Your task to perform on an android device: Search for seafood restaurants on Google Maps Image 0: 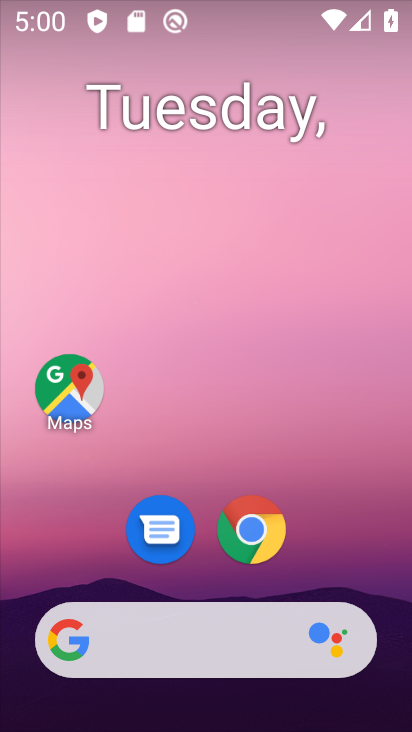
Step 0: press home button
Your task to perform on an android device: Search for seafood restaurants on Google Maps Image 1: 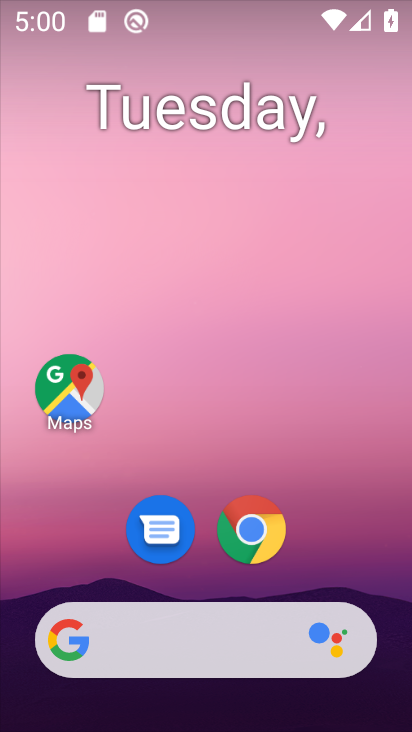
Step 1: drag from (369, 422) to (351, 117)
Your task to perform on an android device: Search for seafood restaurants on Google Maps Image 2: 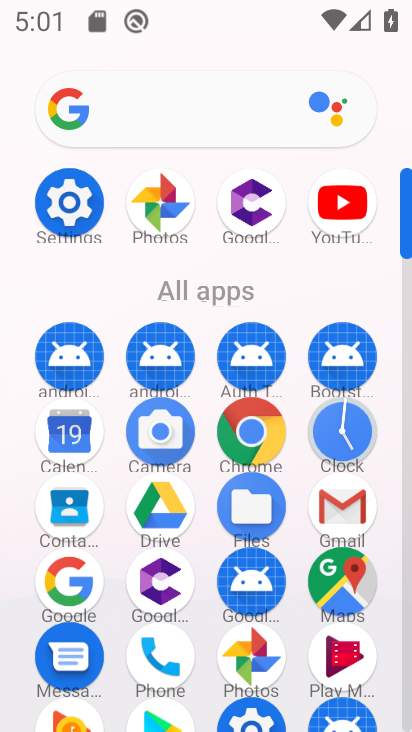
Step 2: click (327, 596)
Your task to perform on an android device: Search for seafood restaurants on Google Maps Image 3: 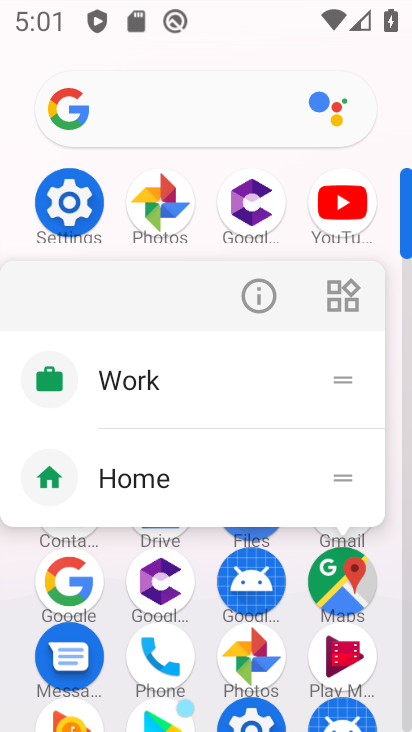
Step 3: press back button
Your task to perform on an android device: Search for seafood restaurants on Google Maps Image 4: 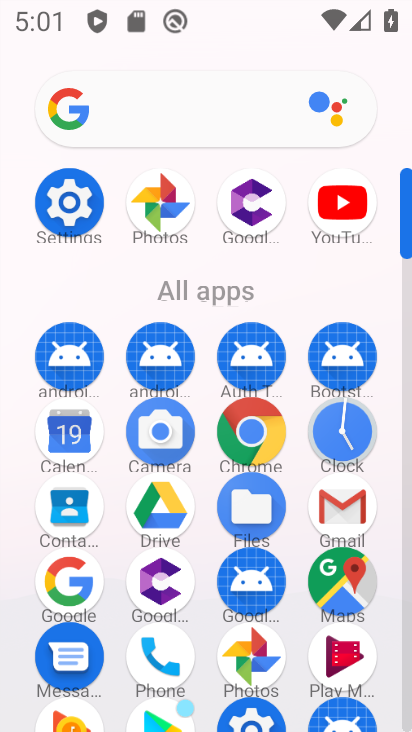
Step 4: click (349, 579)
Your task to perform on an android device: Search for seafood restaurants on Google Maps Image 5: 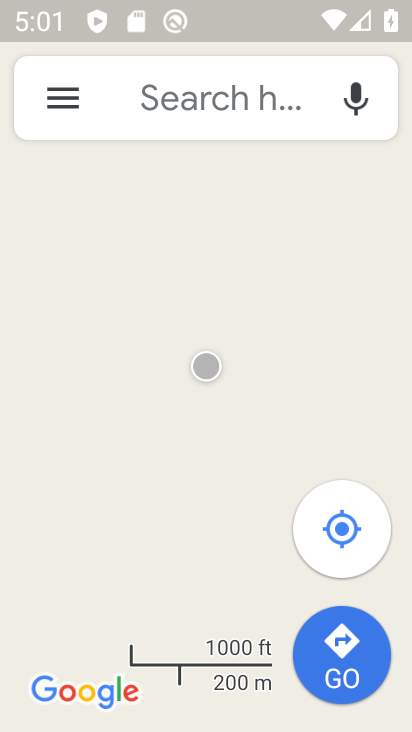
Step 5: click (142, 90)
Your task to perform on an android device: Search for seafood restaurants on Google Maps Image 6: 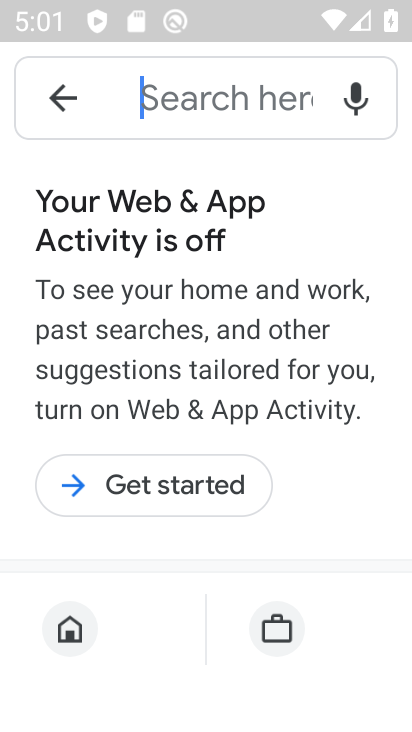
Step 6: click (128, 105)
Your task to perform on an android device: Search for seafood restaurants on Google Maps Image 7: 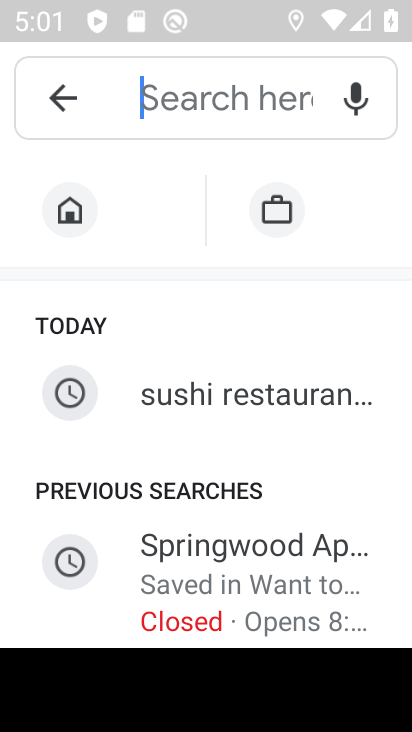
Step 7: type "seafood restaurants"
Your task to perform on an android device: Search for seafood restaurants on Google Maps Image 8: 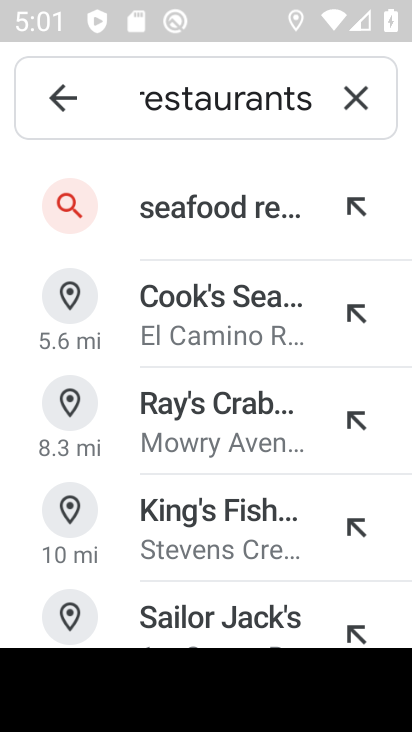
Step 8: click (230, 207)
Your task to perform on an android device: Search for seafood restaurants on Google Maps Image 9: 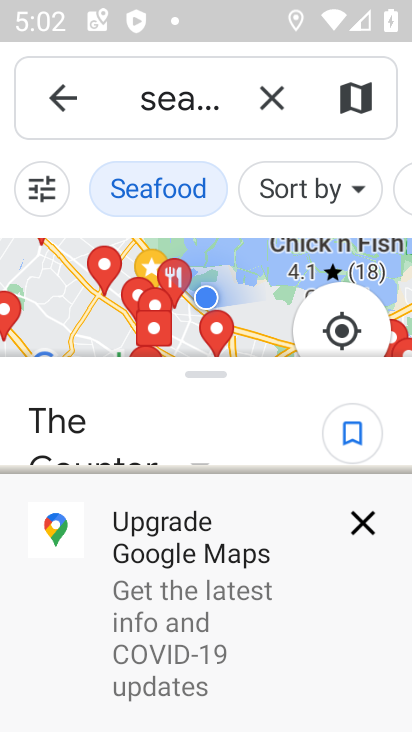
Step 9: task complete